Your task to perform on an android device: turn on airplane mode Image 0: 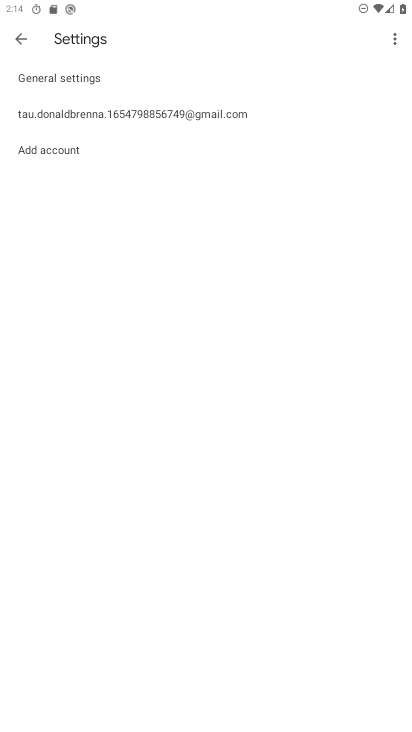
Step 0: press home button
Your task to perform on an android device: turn on airplane mode Image 1: 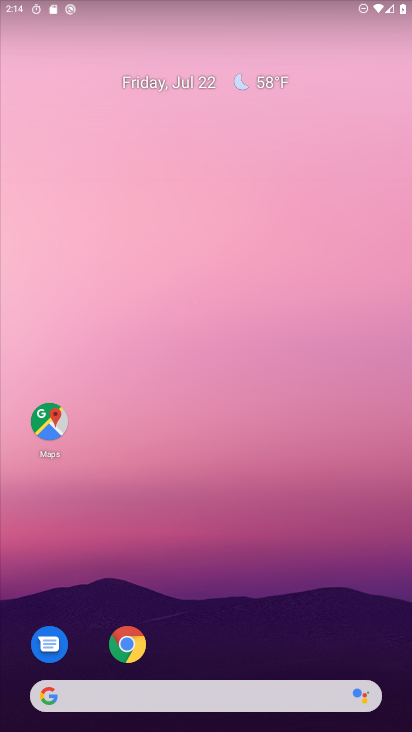
Step 1: drag from (212, 629) to (263, 126)
Your task to perform on an android device: turn on airplane mode Image 2: 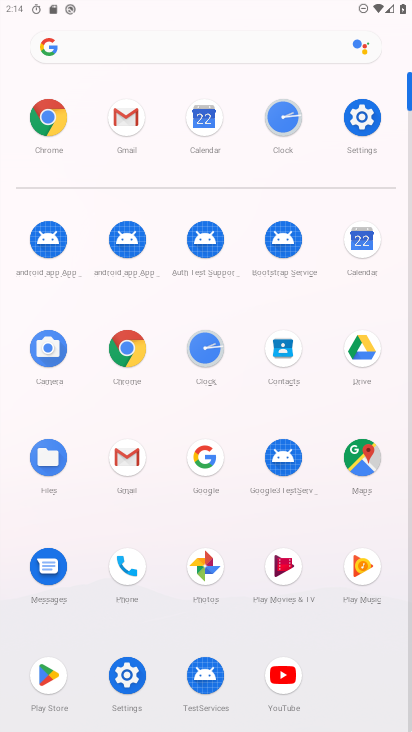
Step 2: click (353, 117)
Your task to perform on an android device: turn on airplane mode Image 3: 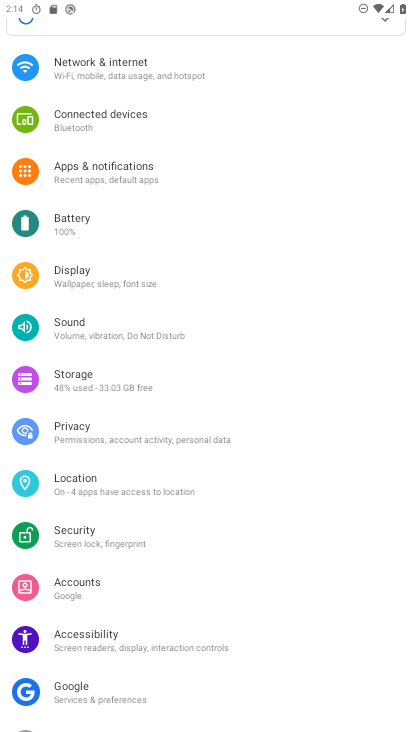
Step 3: click (109, 90)
Your task to perform on an android device: turn on airplane mode Image 4: 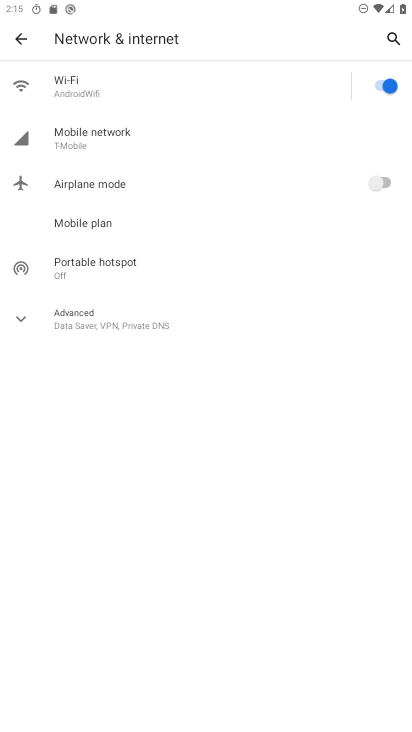
Step 4: click (391, 188)
Your task to perform on an android device: turn on airplane mode Image 5: 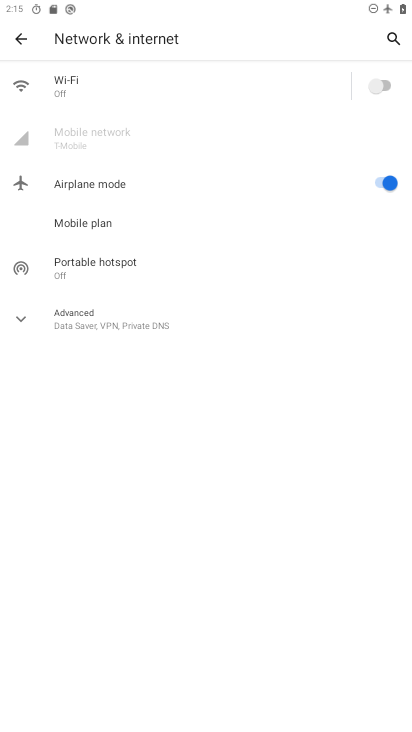
Step 5: task complete